Your task to perform on an android device: all mails in gmail Image 0: 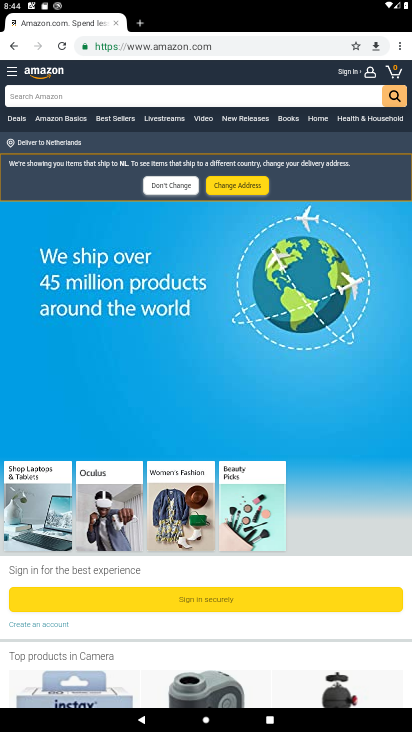
Step 0: press home button
Your task to perform on an android device: all mails in gmail Image 1: 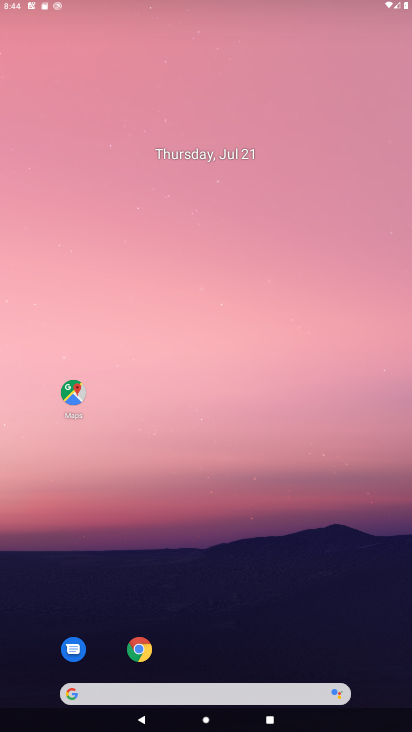
Step 1: drag from (195, 631) to (193, 28)
Your task to perform on an android device: all mails in gmail Image 2: 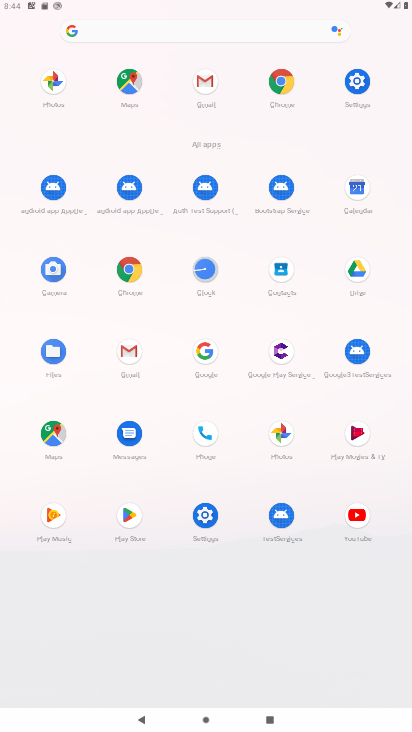
Step 2: click (197, 81)
Your task to perform on an android device: all mails in gmail Image 3: 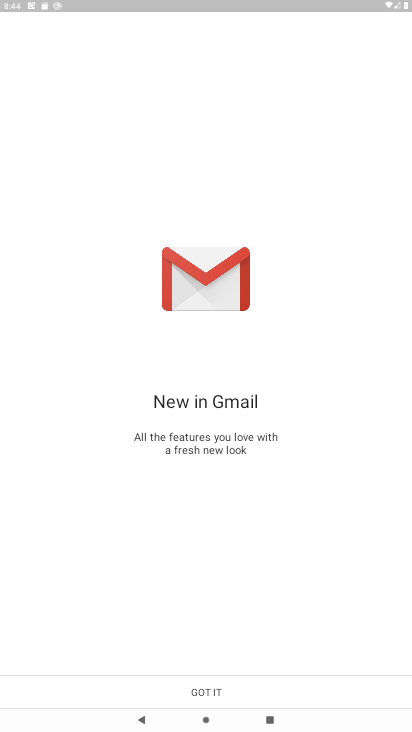
Step 3: click (221, 690)
Your task to perform on an android device: all mails in gmail Image 4: 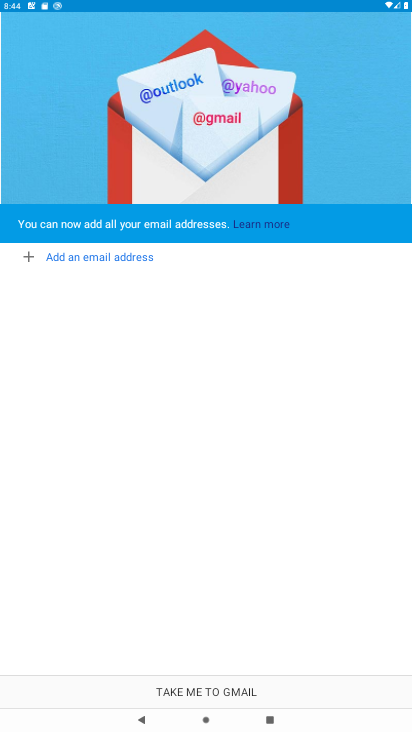
Step 4: click (223, 690)
Your task to perform on an android device: all mails in gmail Image 5: 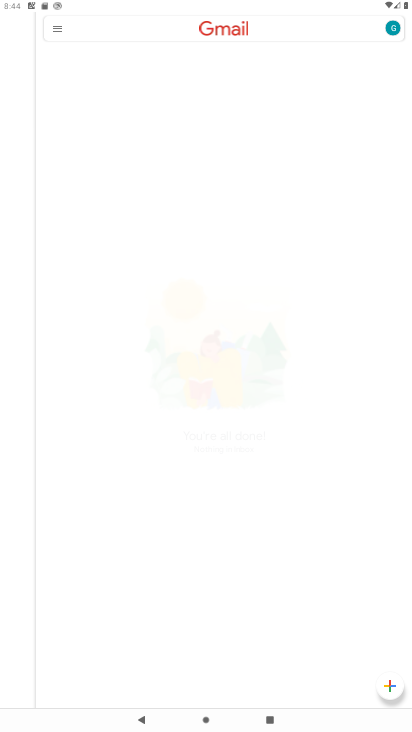
Step 5: click (54, 33)
Your task to perform on an android device: all mails in gmail Image 6: 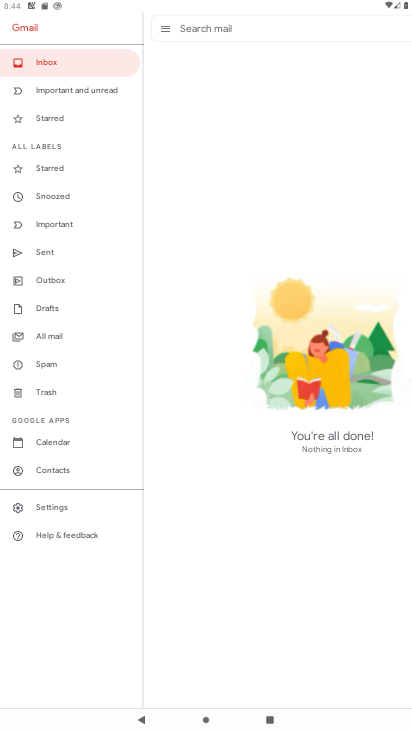
Step 6: click (40, 328)
Your task to perform on an android device: all mails in gmail Image 7: 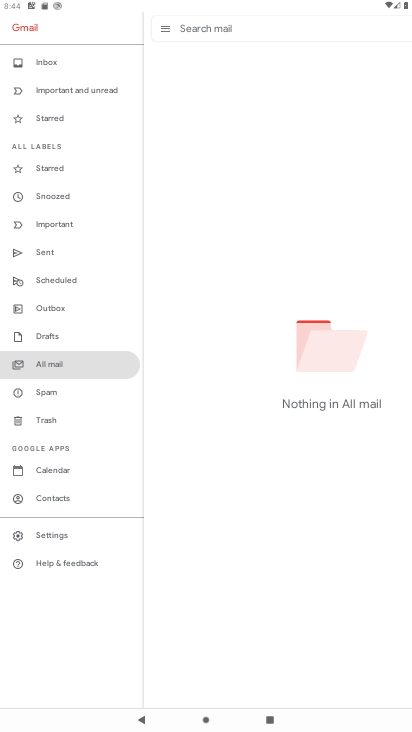
Step 7: task complete